Your task to perform on an android device: Check the news Image 0: 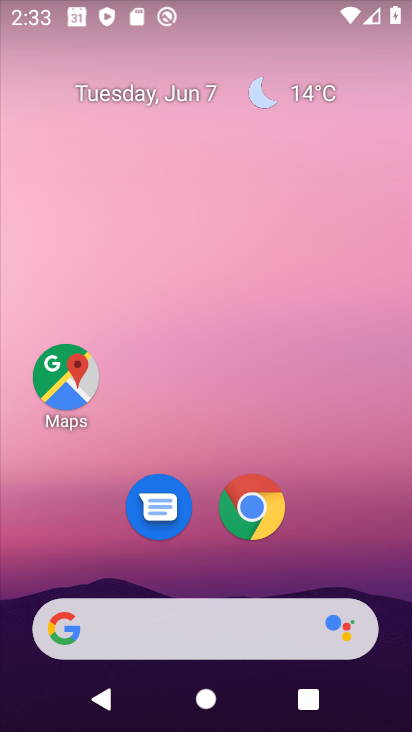
Step 0: drag from (350, 428) to (276, 72)
Your task to perform on an android device: Check the news Image 1: 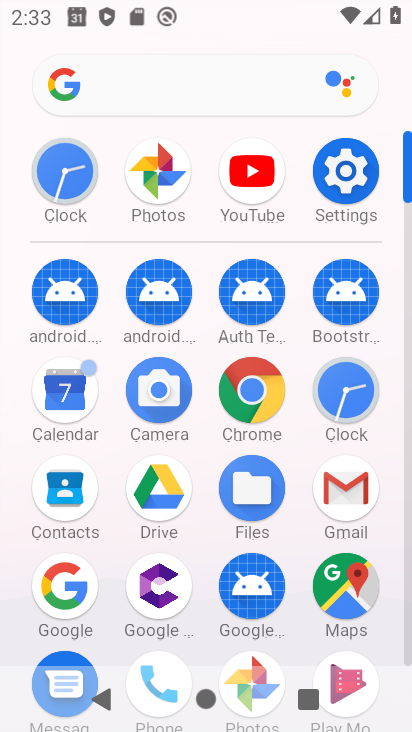
Step 1: click (261, 385)
Your task to perform on an android device: Check the news Image 2: 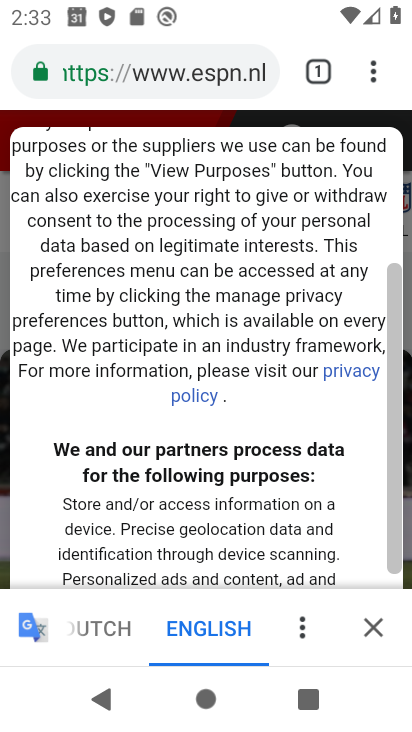
Step 2: click (186, 72)
Your task to perform on an android device: Check the news Image 3: 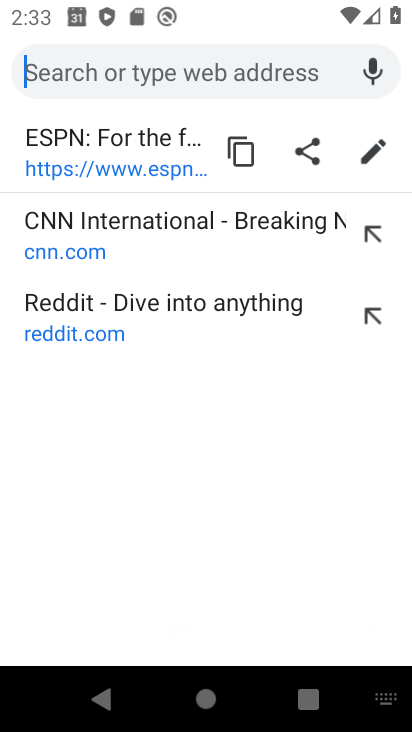
Step 3: type "news"
Your task to perform on an android device: Check the news Image 4: 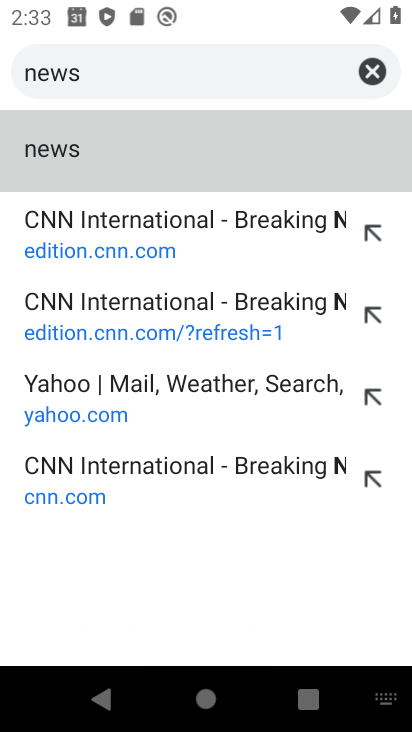
Step 4: click (69, 151)
Your task to perform on an android device: Check the news Image 5: 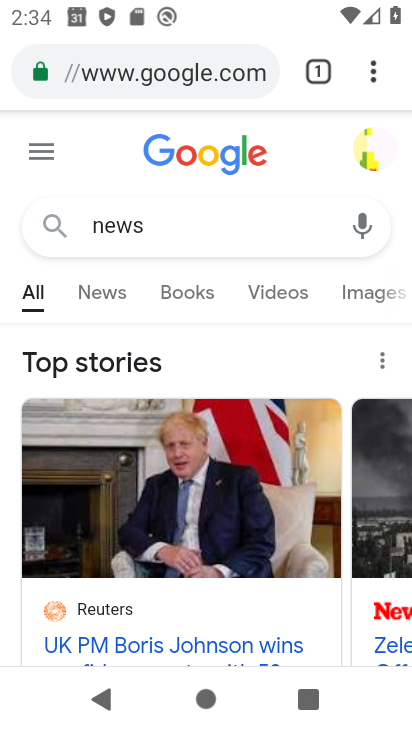
Step 5: click (103, 287)
Your task to perform on an android device: Check the news Image 6: 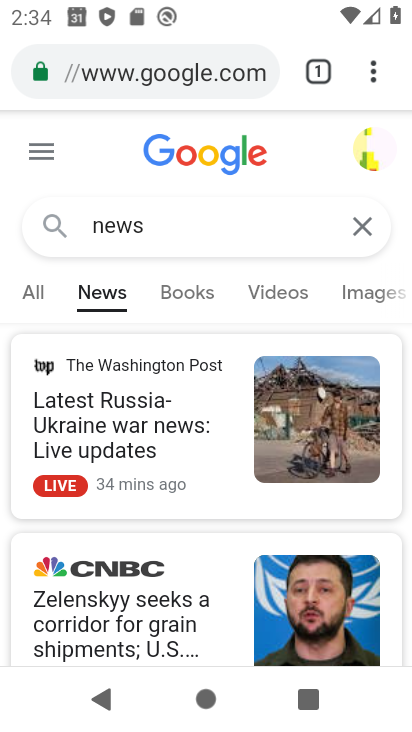
Step 6: task complete